Your task to perform on an android device: Open maps Image 0: 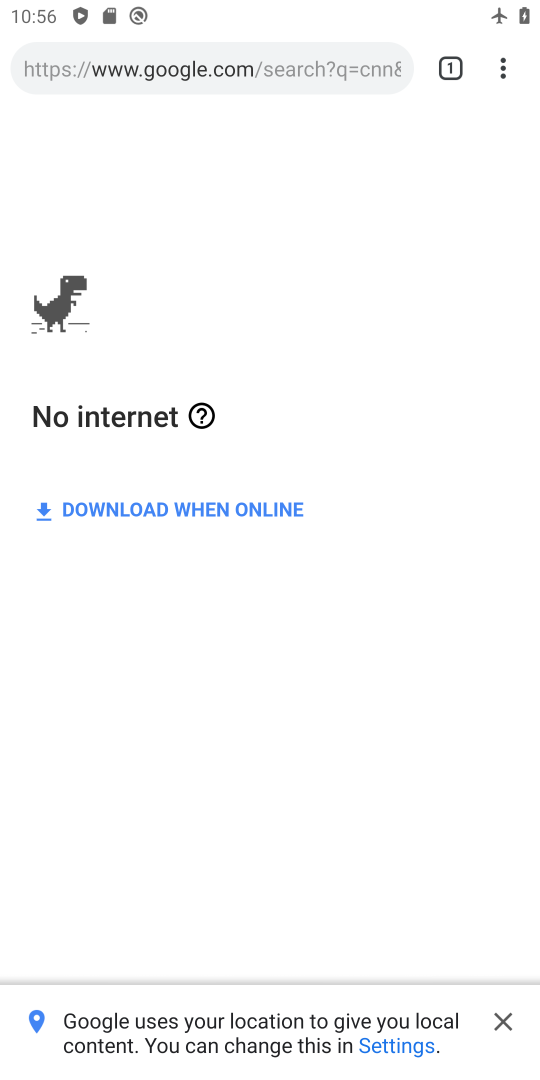
Step 0: press home button
Your task to perform on an android device: Open maps Image 1: 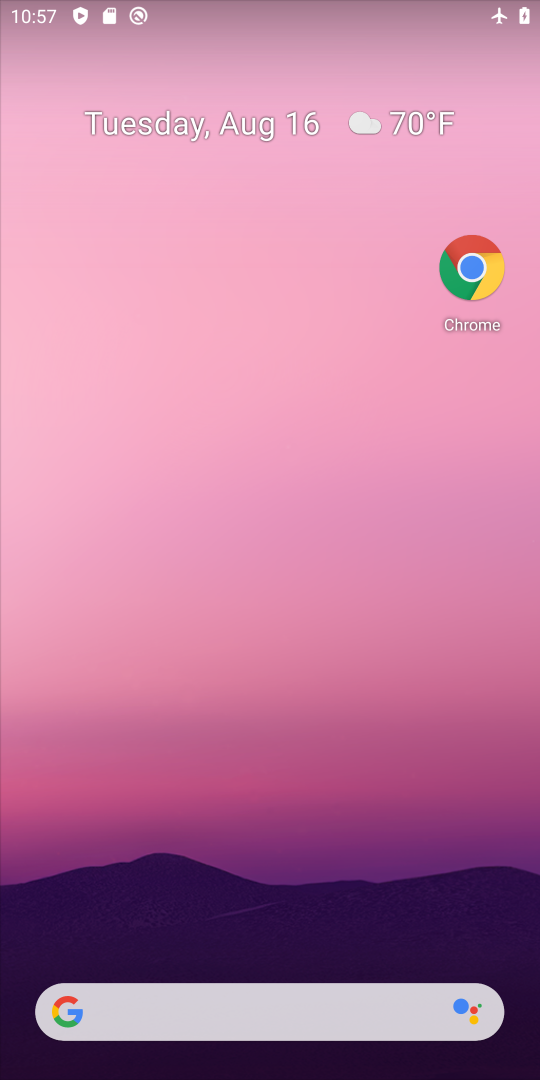
Step 1: drag from (218, 955) to (62, 83)
Your task to perform on an android device: Open maps Image 2: 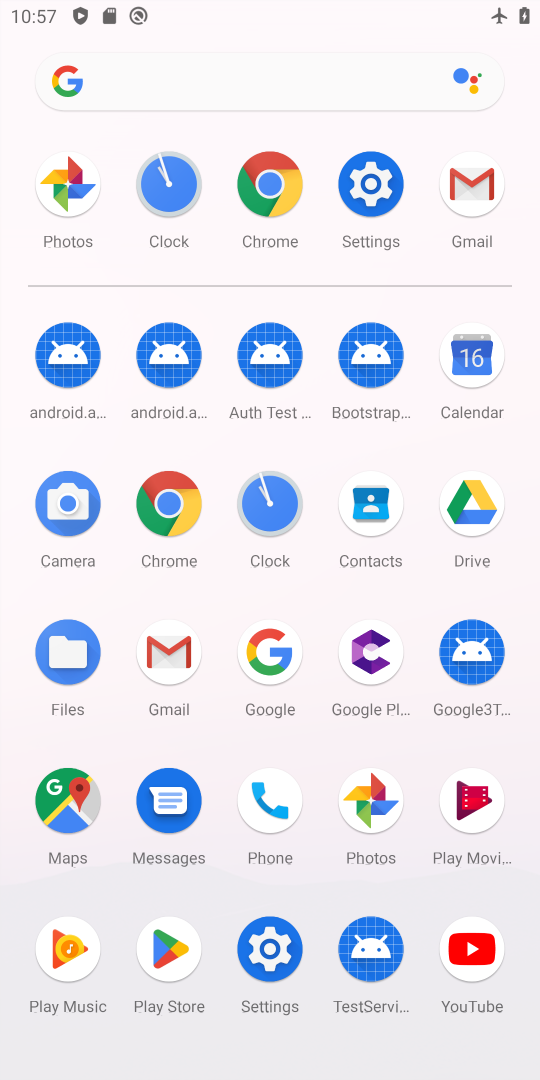
Step 2: click (75, 791)
Your task to perform on an android device: Open maps Image 3: 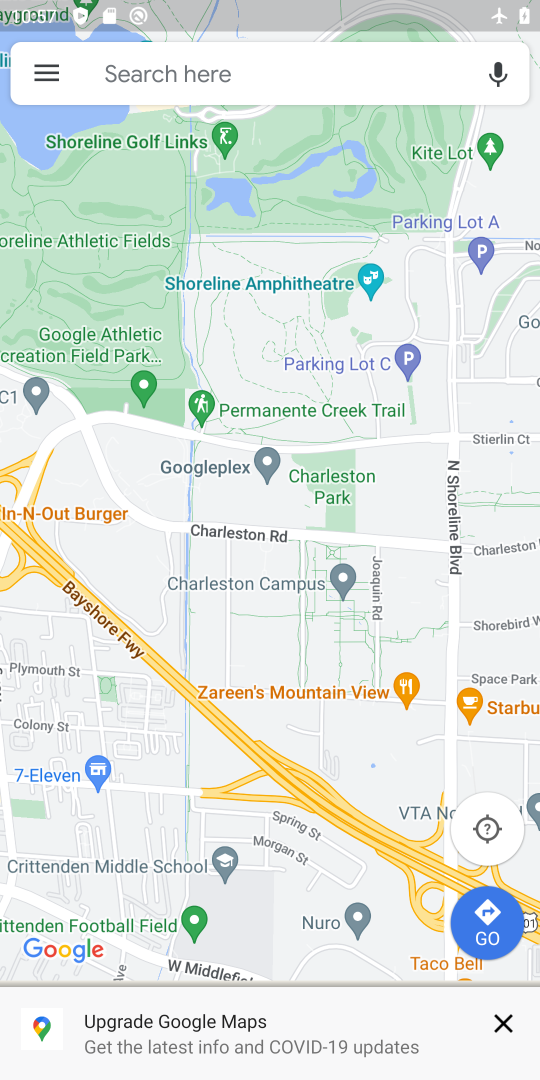
Step 3: task complete